Your task to perform on an android device: Open calendar and show me the third week of next month Image 0: 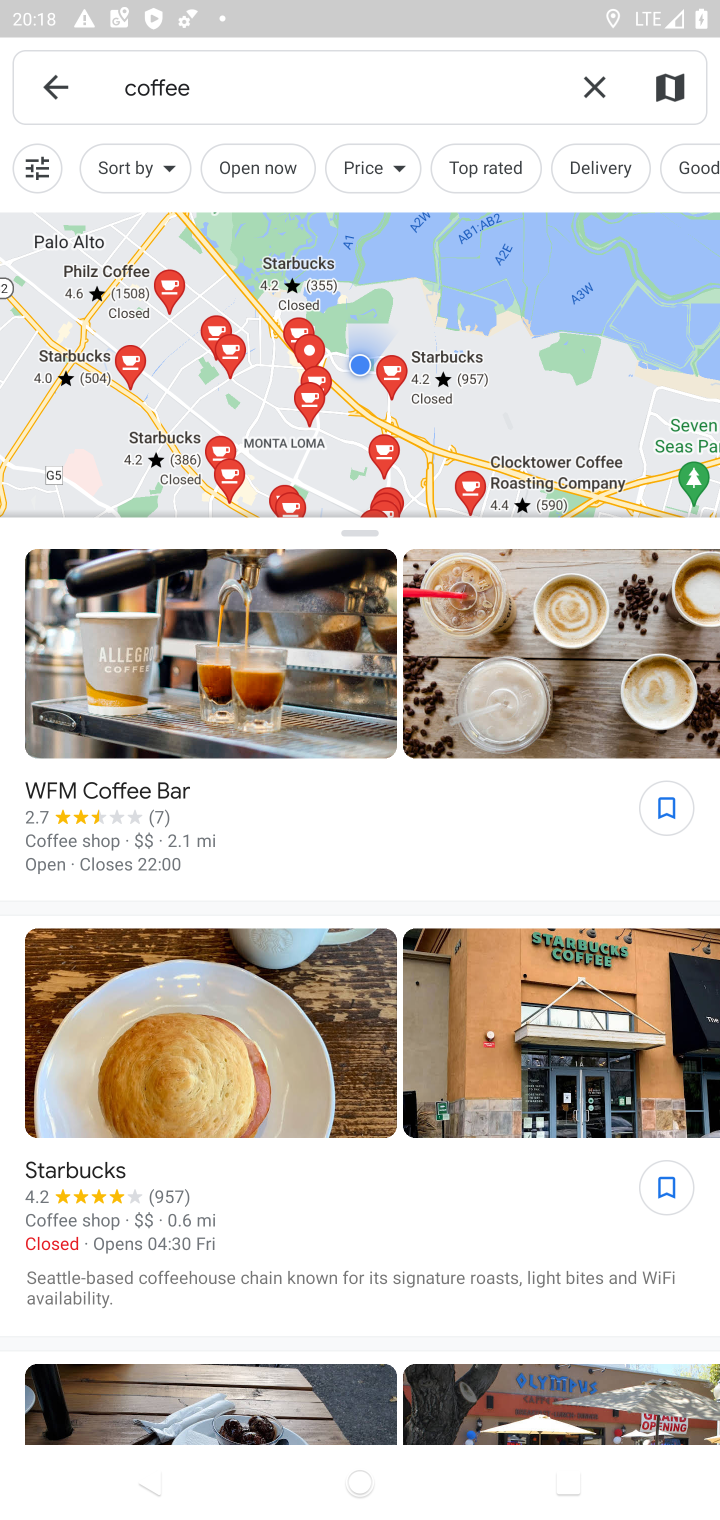
Step 0: press home button
Your task to perform on an android device: Open calendar and show me the third week of next month Image 1: 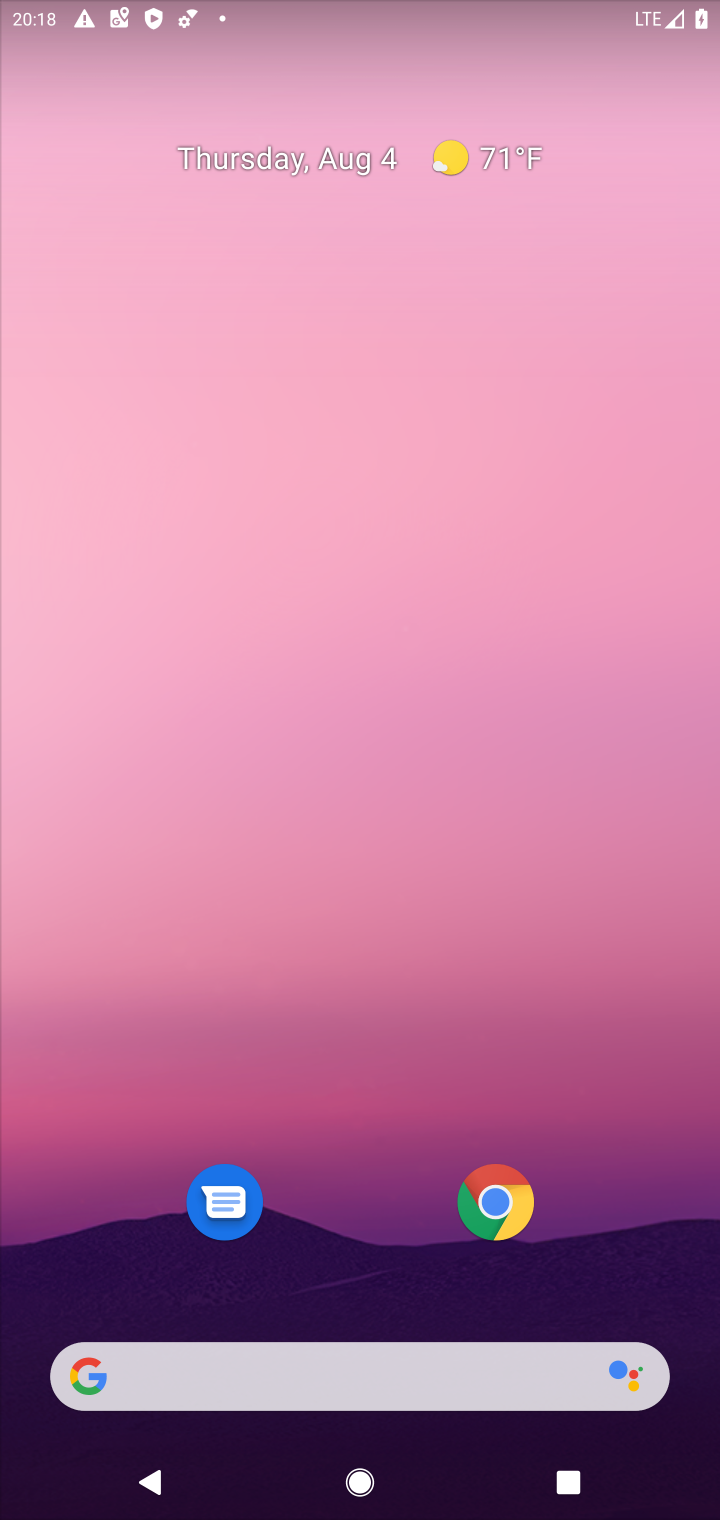
Step 1: drag from (375, 1252) to (332, 278)
Your task to perform on an android device: Open calendar and show me the third week of next month Image 2: 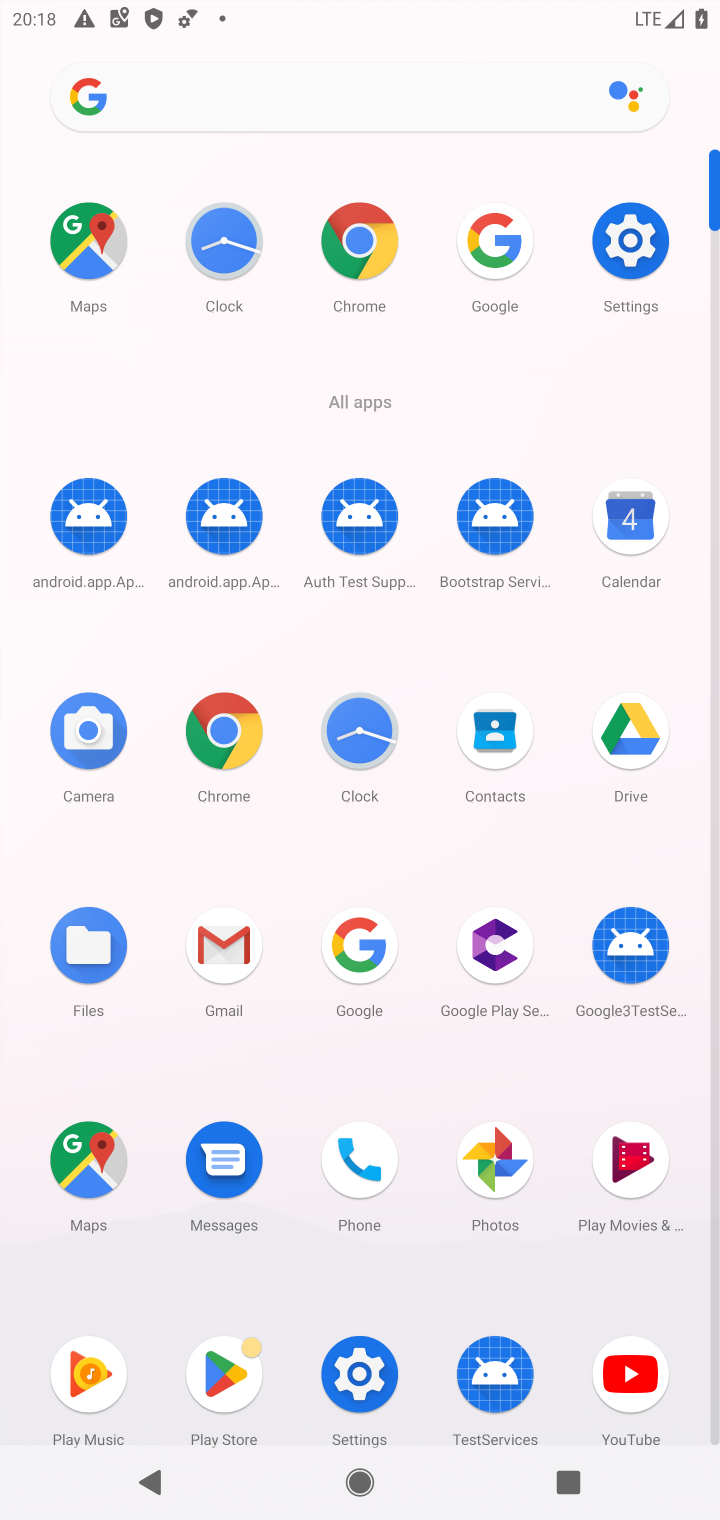
Step 2: click (607, 567)
Your task to perform on an android device: Open calendar and show me the third week of next month Image 3: 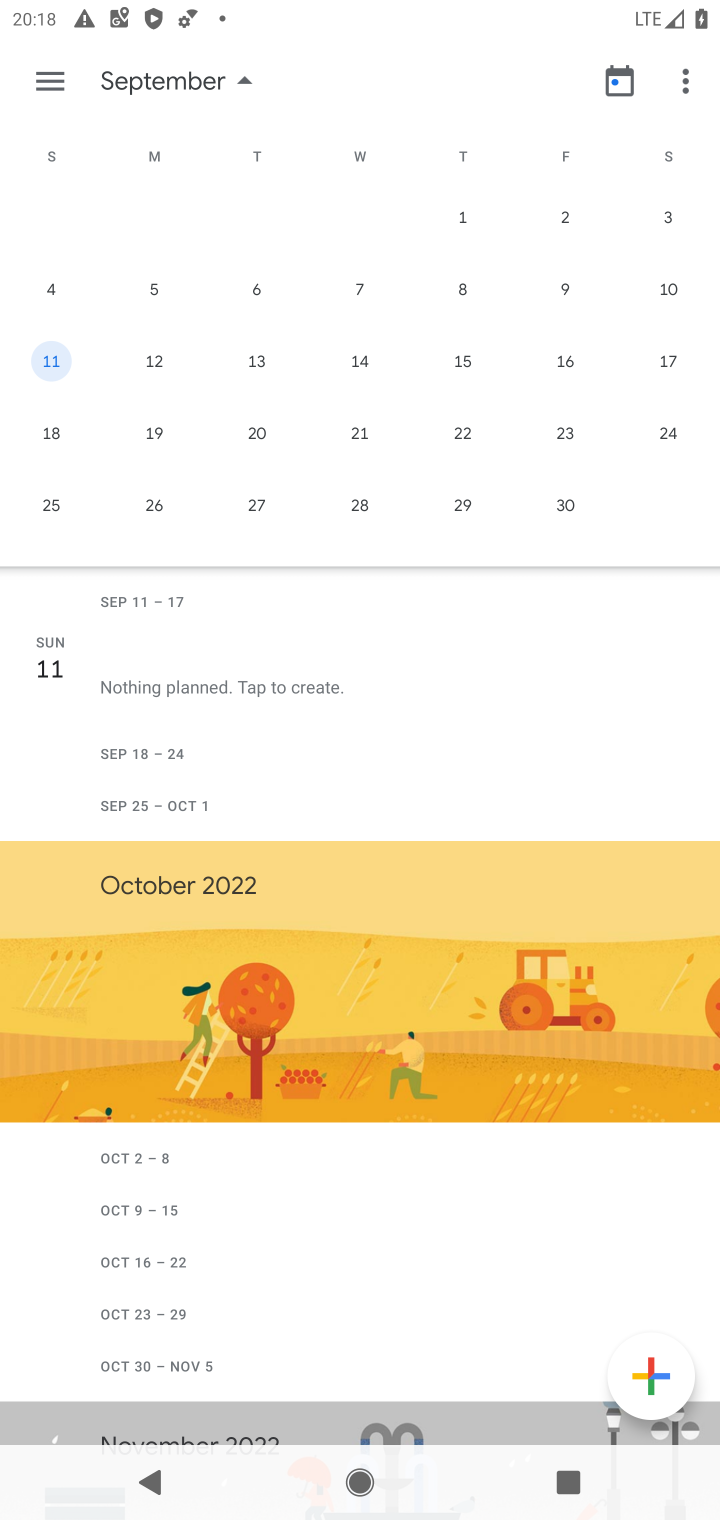
Step 3: drag from (610, 353) to (456, 372)
Your task to perform on an android device: Open calendar and show me the third week of next month Image 4: 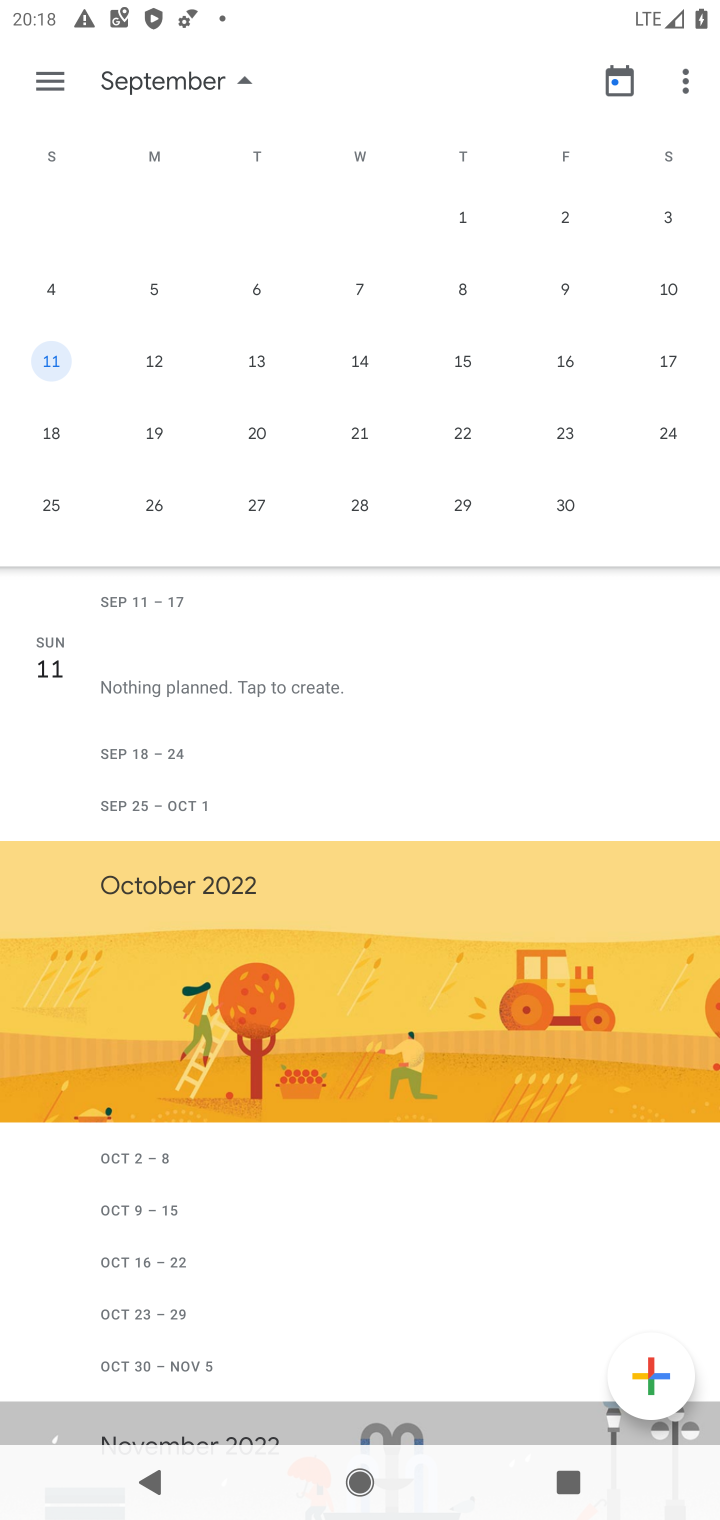
Step 4: click (55, 414)
Your task to perform on an android device: Open calendar and show me the third week of next month Image 5: 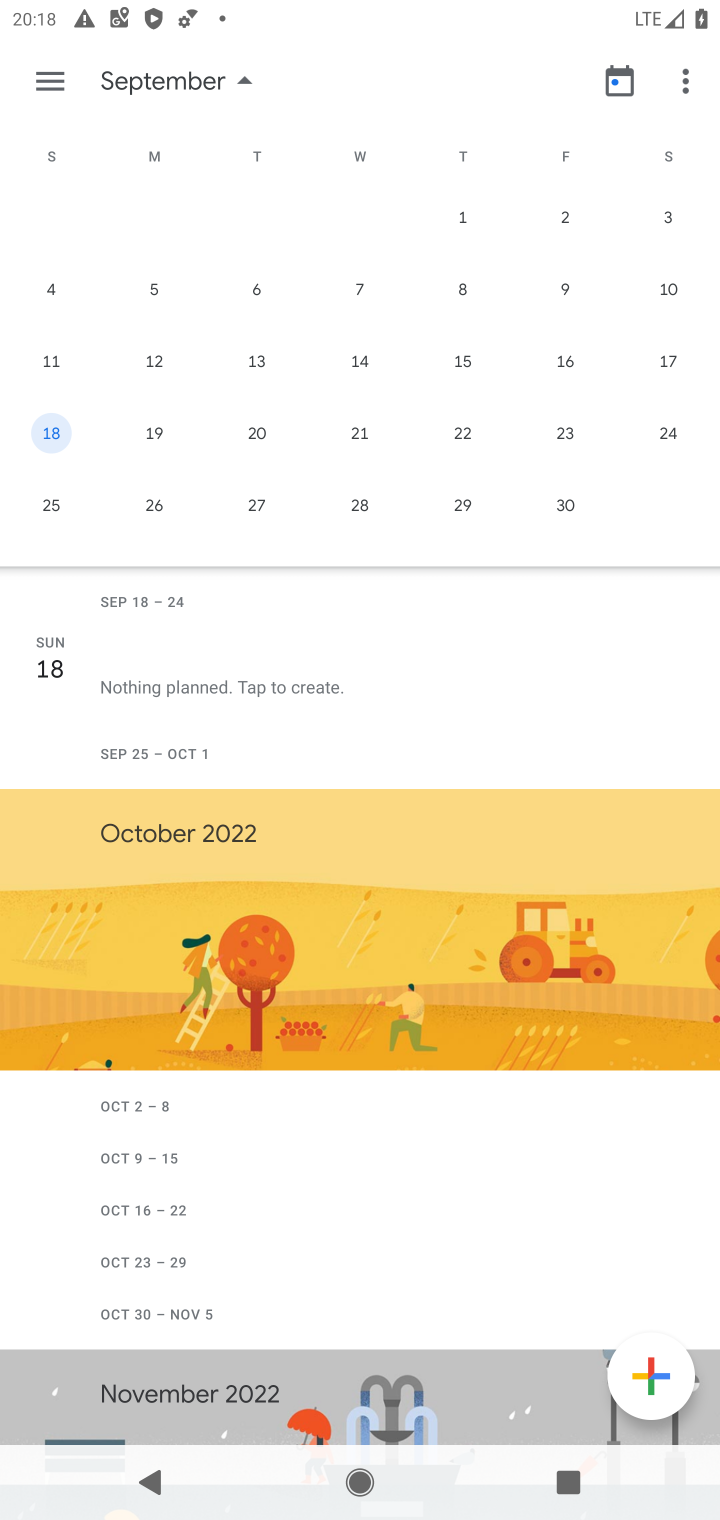
Step 5: click (60, 384)
Your task to perform on an android device: Open calendar and show me the third week of next month Image 6: 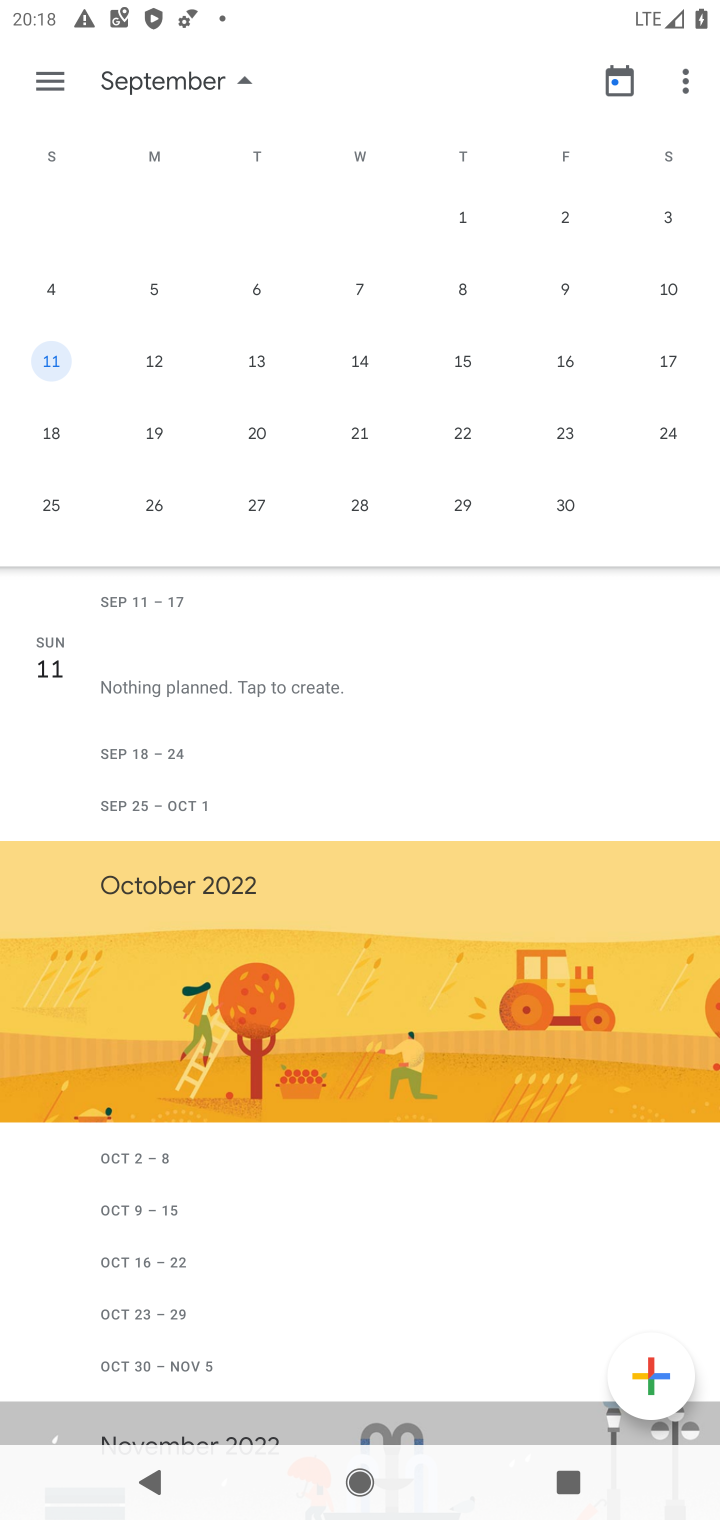
Step 6: click (130, 372)
Your task to perform on an android device: Open calendar and show me the third week of next month Image 7: 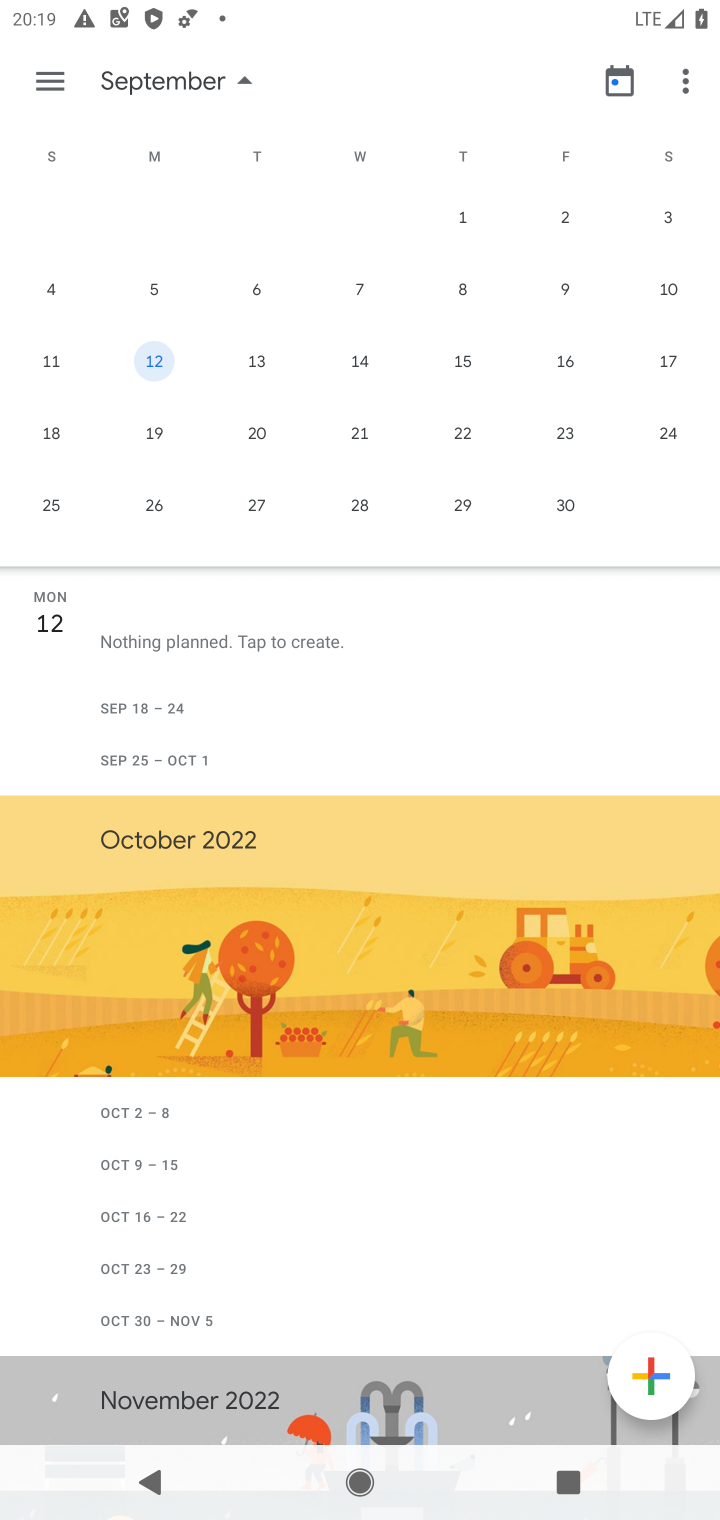
Step 7: task complete